Your task to perform on an android device: Is it going to rain today? Image 0: 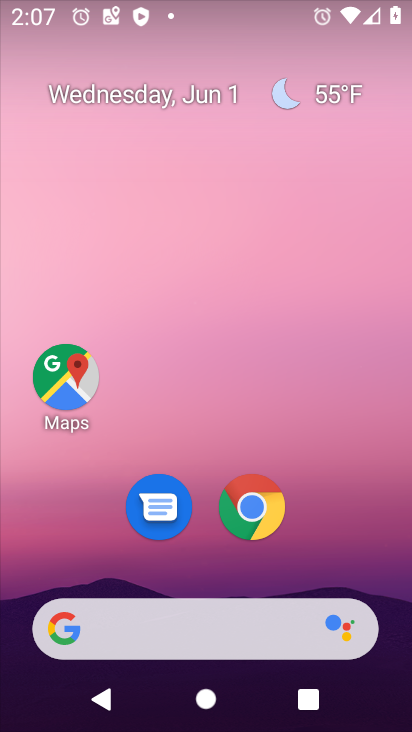
Step 0: click (323, 95)
Your task to perform on an android device: Is it going to rain today? Image 1: 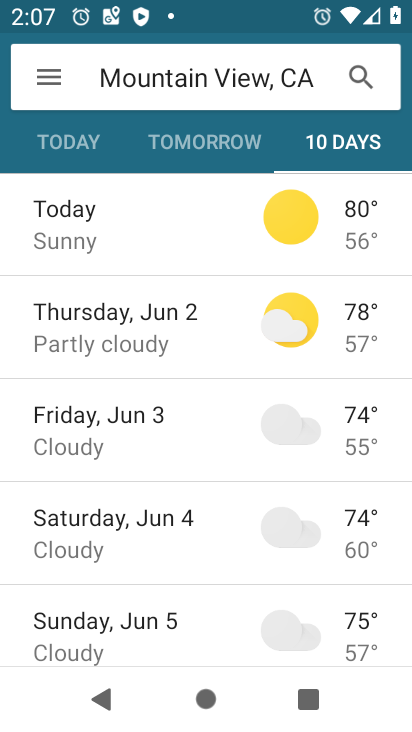
Step 1: click (81, 145)
Your task to perform on an android device: Is it going to rain today? Image 2: 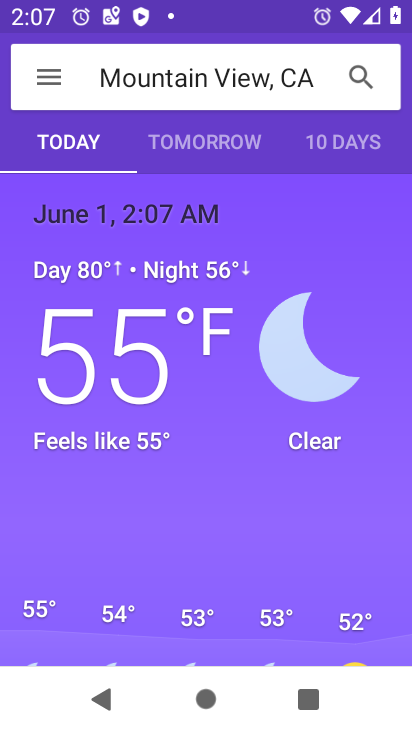
Step 2: task complete